Your task to perform on an android device: Show me popular videos on Youtube Image 0: 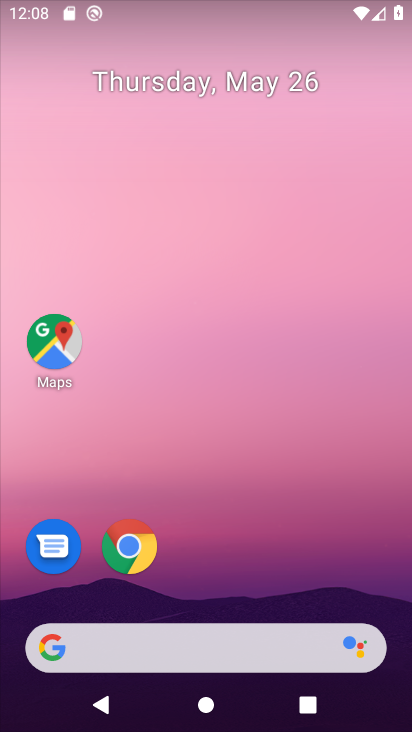
Step 0: drag from (192, 367) to (234, 233)
Your task to perform on an android device: Show me popular videos on Youtube Image 1: 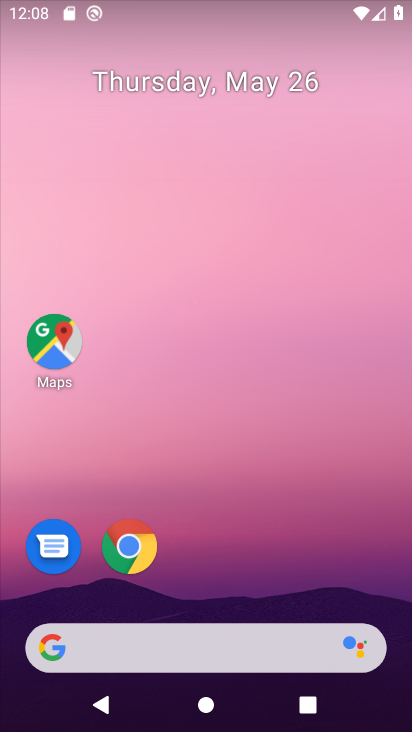
Step 1: drag from (185, 469) to (240, 198)
Your task to perform on an android device: Show me popular videos on Youtube Image 2: 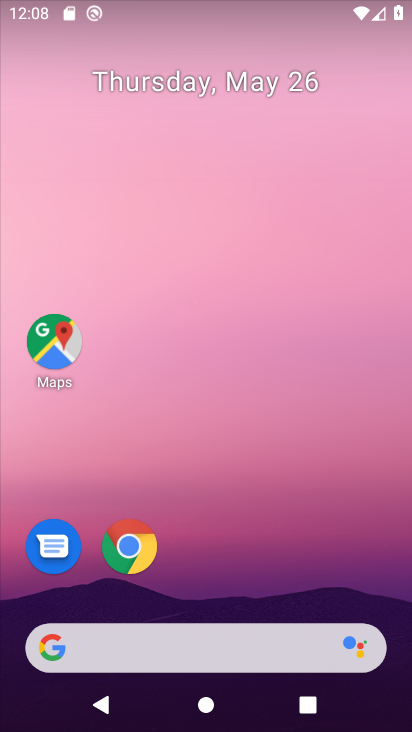
Step 2: drag from (220, 594) to (348, 127)
Your task to perform on an android device: Show me popular videos on Youtube Image 3: 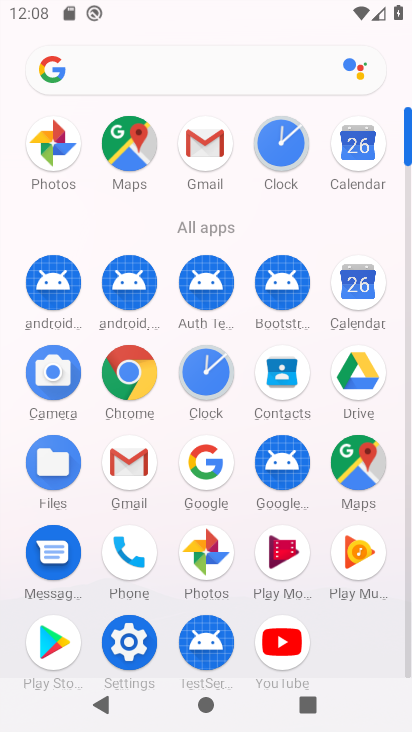
Step 3: click (279, 643)
Your task to perform on an android device: Show me popular videos on Youtube Image 4: 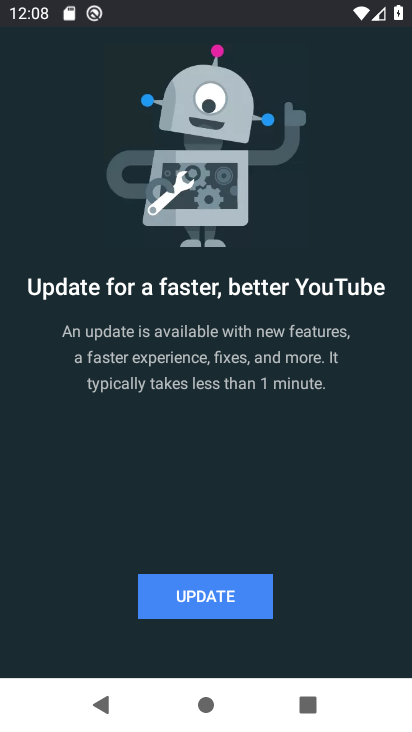
Step 4: click (174, 597)
Your task to perform on an android device: Show me popular videos on Youtube Image 5: 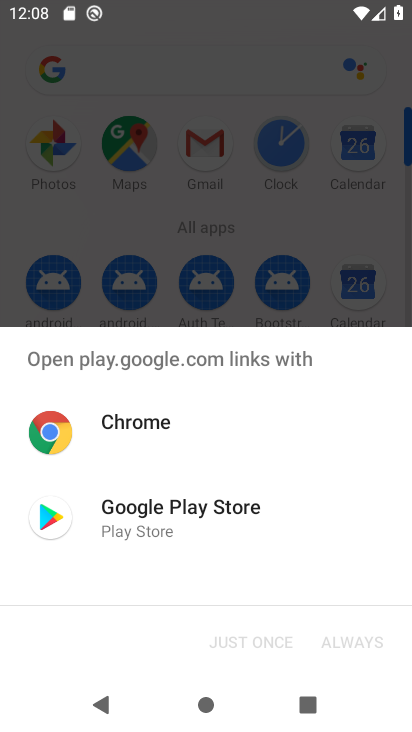
Step 5: click (137, 512)
Your task to perform on an android device: Show me popular videos on Youtube Image 6: 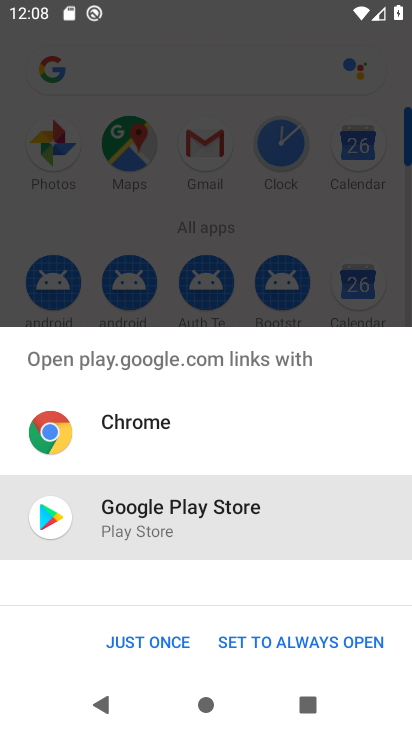
Step 6: click (178, 638)
Your task to perform on an android device: Show me popular videos on Youtube Image 7: 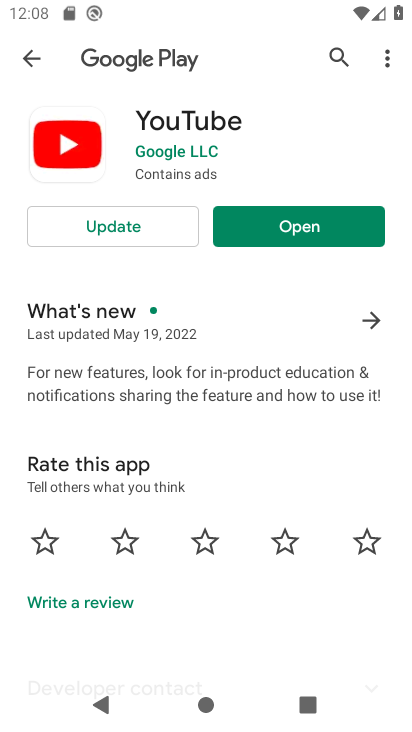
Step 7: click (119, 216)
Your task to perform on an android device: Show me popular videos on Youtube Image 8: 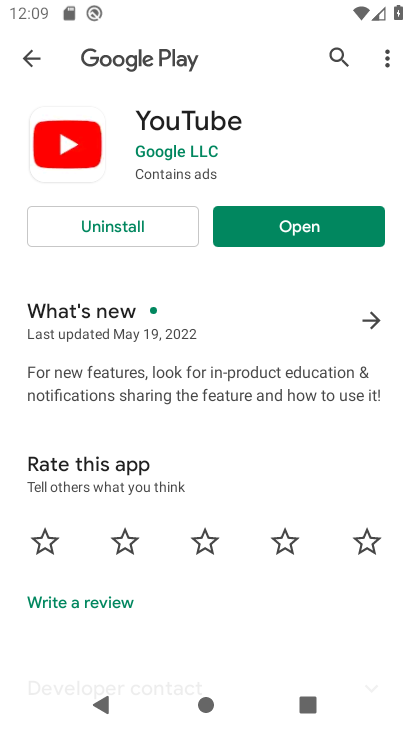
Step 8: click (270, 230)
Your task to perform on an android device: Show me popular videos on Youtube Image 9: 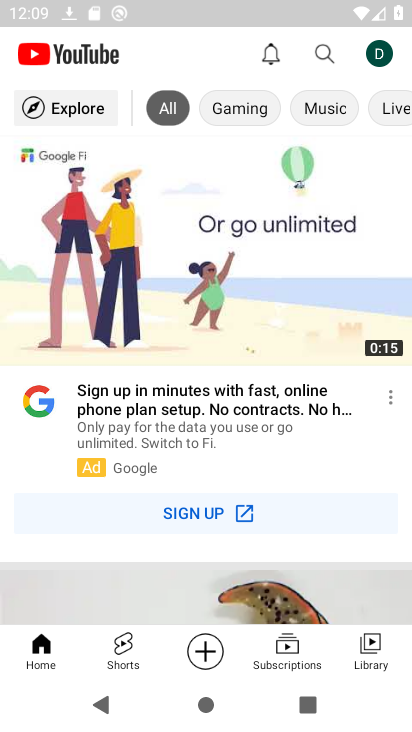
Step 9: click (324, 57)
Your task to perform on an android device: Show me popular videos on Youtube Image 10: 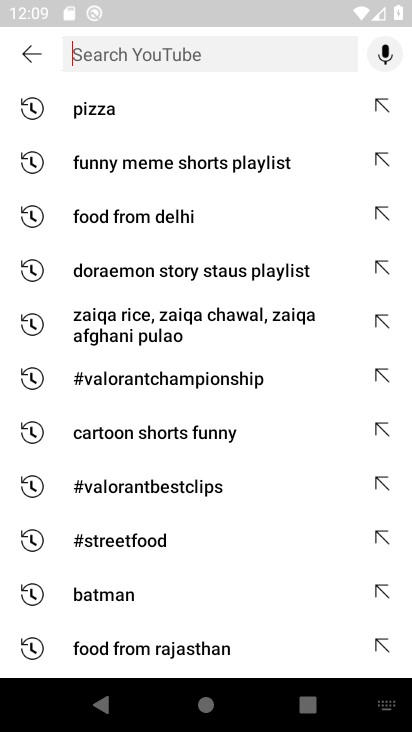
Step 10: type "popular videos"
Your task to perform on an android device: Show me popular videos on Youtube Image 11: 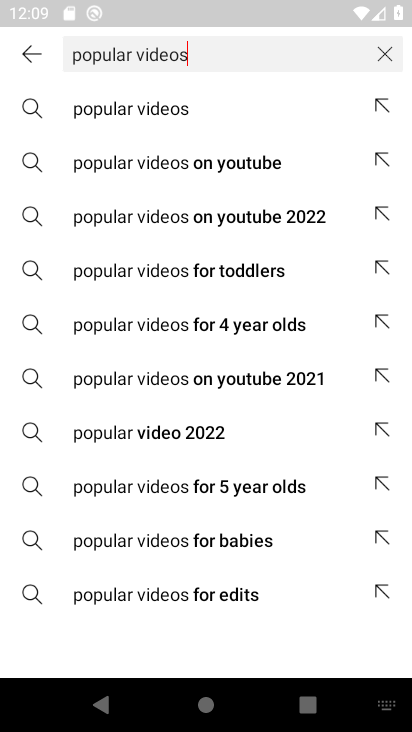
Step 11: click (162, 123)
Your task to perform on an android device: Show me popular videos on Youtube Image 12: 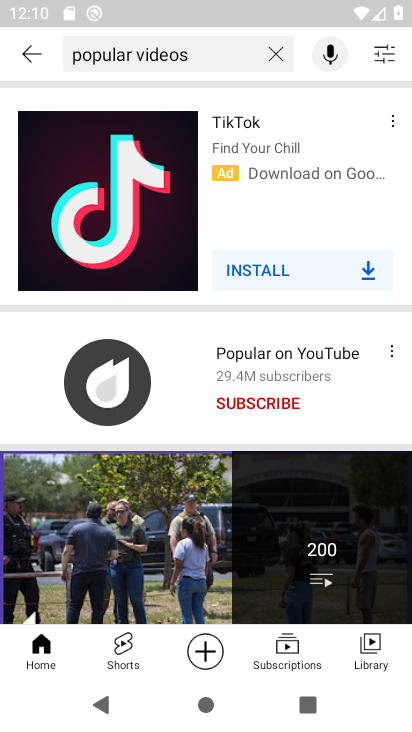
Step 12: task complete